Your task to perform on an android device: make emails show in primary in the gmail app Image 0: 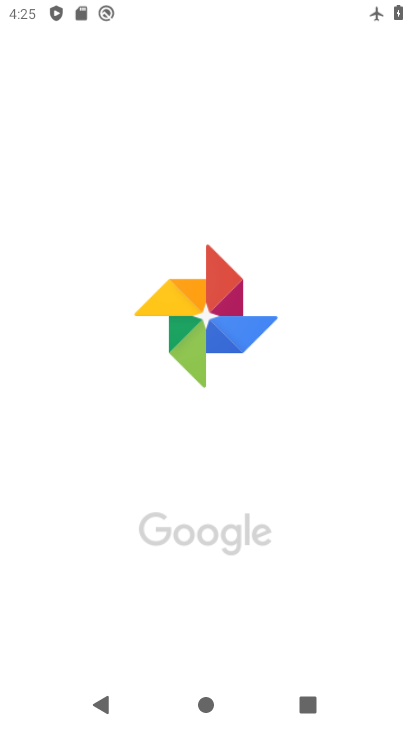
Step 0: drag from (214, 574) to (251, 20)
Your task to perform on an android device: make emails show in primary in the gmail app Image 1: 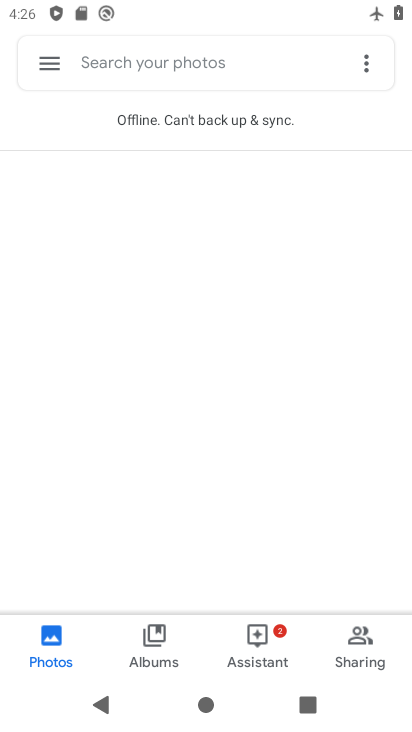
Step 1: press home button
Your task to perform on an android device: make emails show in primary in the gmail app Image 2: 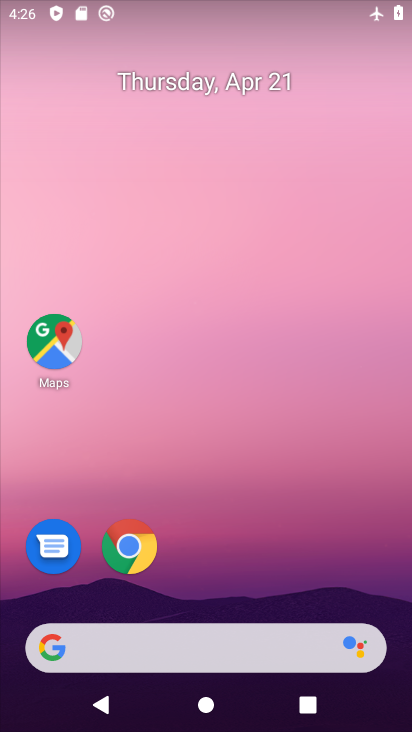
Step 2: drag from (278, 478) to (278, 28)
Your task to perform on an android device: make emails show in primary in the gmail app Image 3: 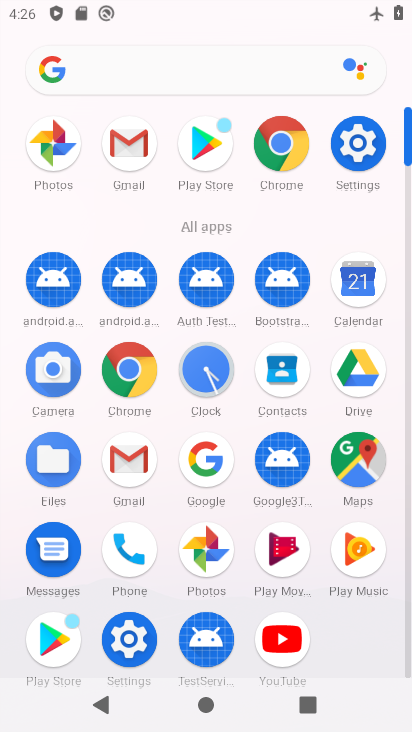
Step 3: click (142, 461)
Your task to perform on an android device: make emails show in primary in the gmail app Image 4: 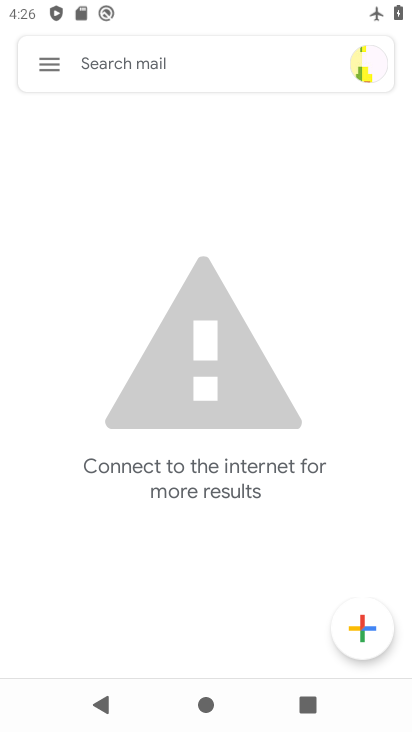
Step 4: click (53, 66)
Your task to perform on an android device: make emails show in primary in the gmail app Image 5: 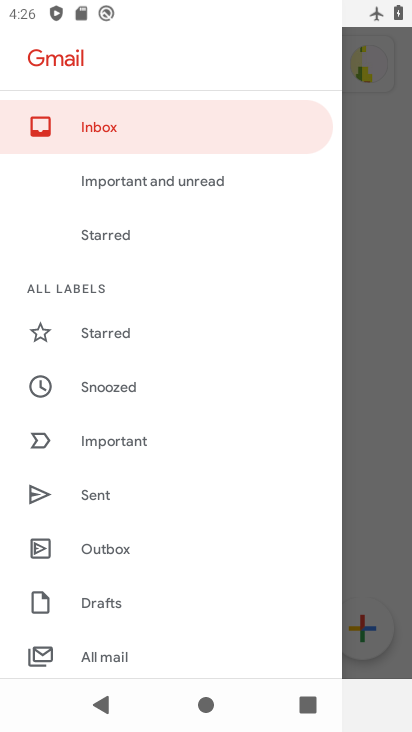
Step 5: drag from (150, 651) to (188, 88)
Your task to perform on an android device: make emails show in primary in the gmail app Image 6: 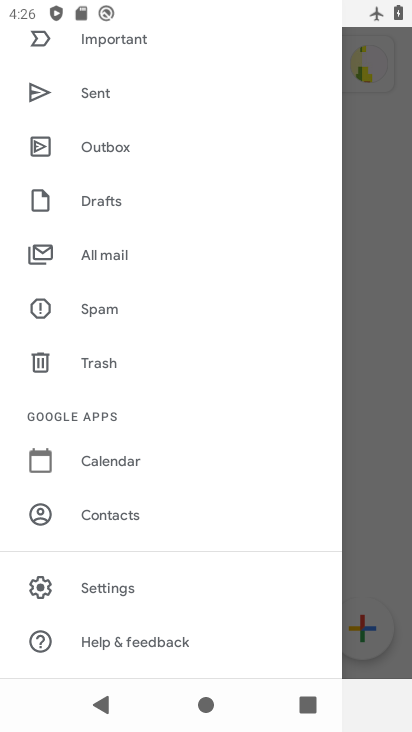
Step 6: click (114, 582)
Your task to perform on an android device: make emails show in primary in the gmail app Image 7: 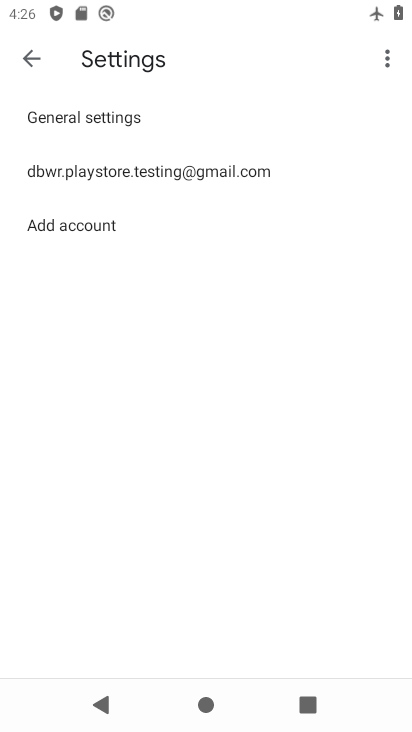
Step 7: click (107, 175)
Your task to perform on an android device: make emails show in primary in the gmail app Image 8: 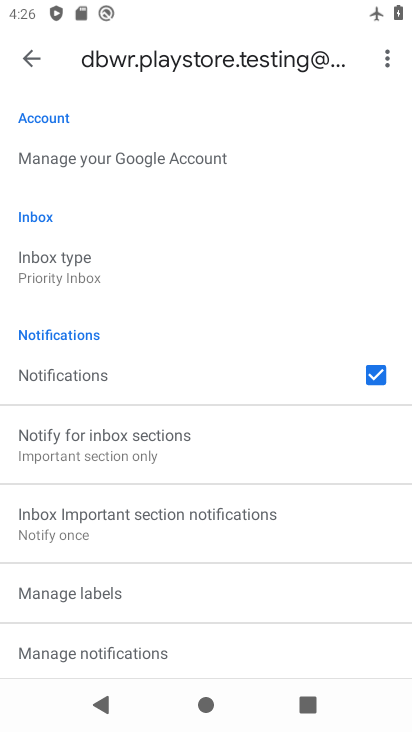
Step 8: click (78, 272)
Your task to perform on an android device: make emails show in primary in the gmail app Image 9: 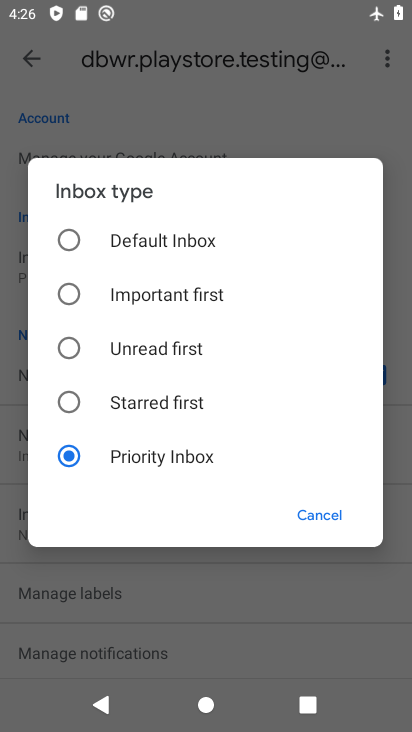
Step 9: click (164, 239)
Your task to perform on an android device: make emails show in primary in the gmail app Image 10: 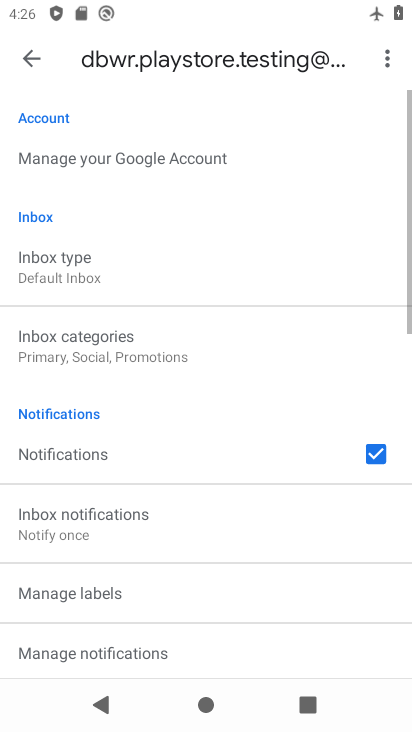
Step 10: task complete